Your task to perform on an android device: turn on javascript in the chrome app Image 0: 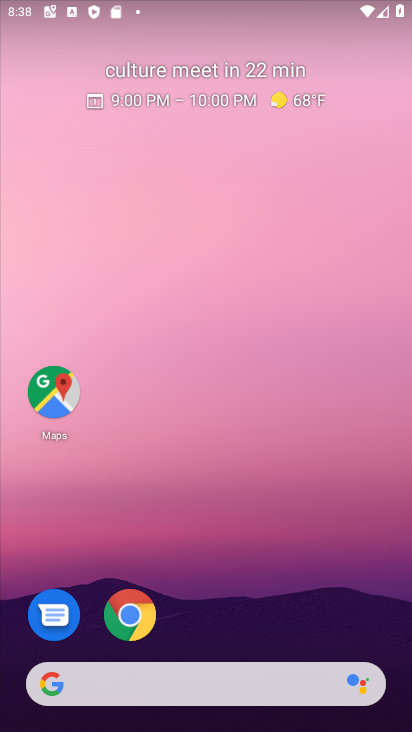
Step 0: click (326, 158)
Your task to perform on an android device: turn on javascript in the chrome app Image 1: 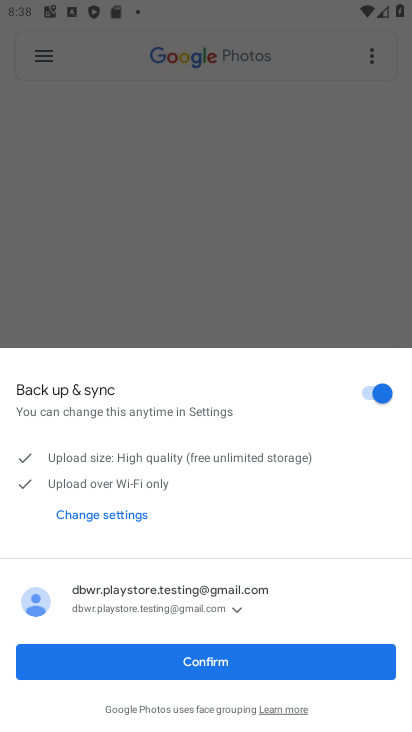
Step 1: click (257, 661)
Your task to perform on an android device: turn on javascript in the chrome app Image 2: 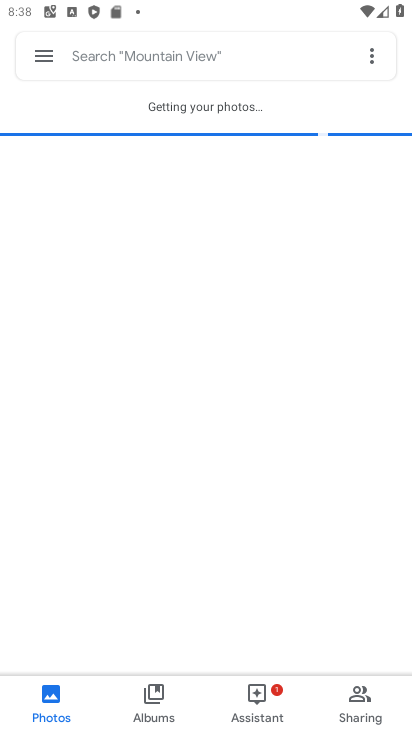
Step 2: press home button
Your task to perform on an android device: turn on javascript in the chrome app Image 3: 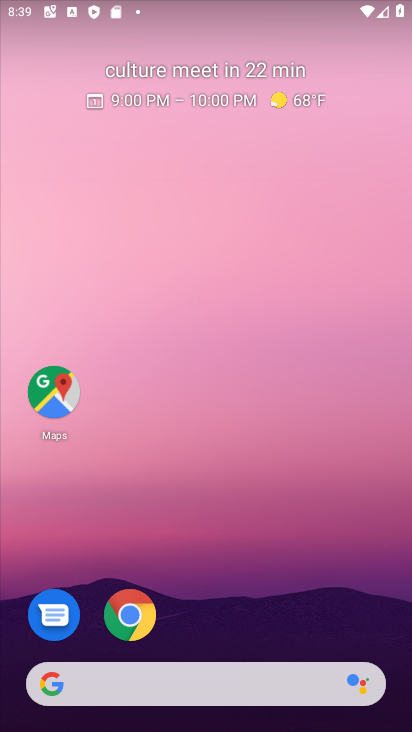
Step 3: drag from (401, 709) to (335, 295)
Your task to perform on an android device: turn on javascript in the chrome app Image 4: 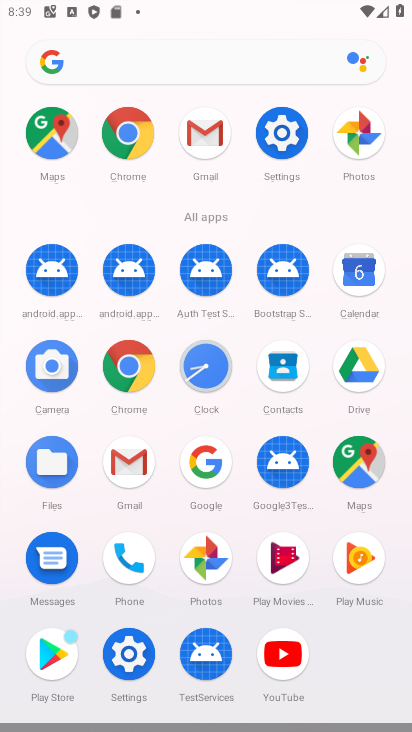
Step 4: click (133, 118)
Your task to perform on an android device: turn on javascript in the chrome app Image 5: 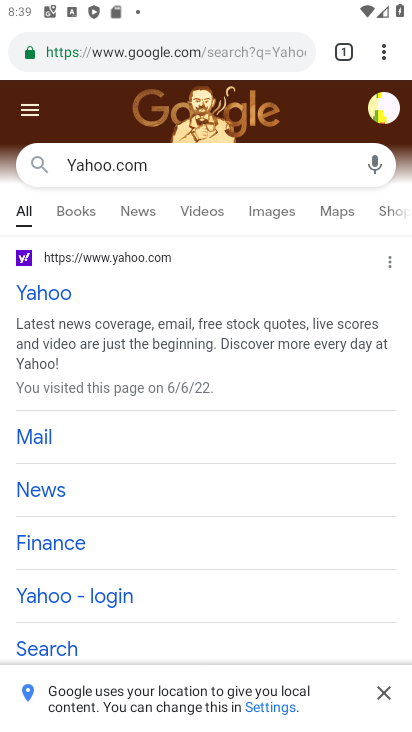
Step 5: click (387, 45)
Your task to perform on an android device: turn on javascript in the chrome app Image 6: 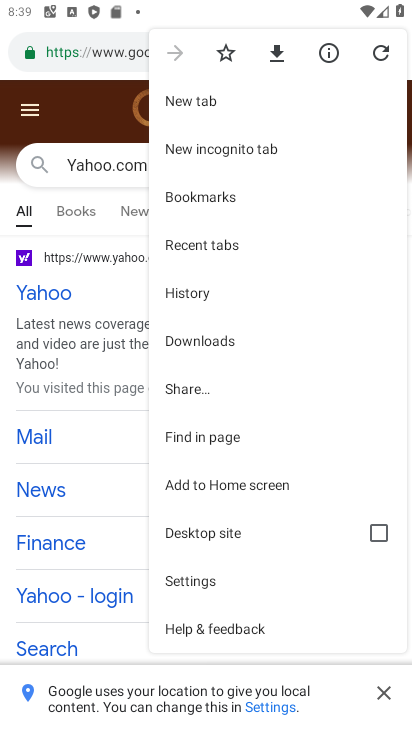
Step 6: click (384, 46)
Your task to perform on an android device: turn on javascript in the chrome app Image 7: 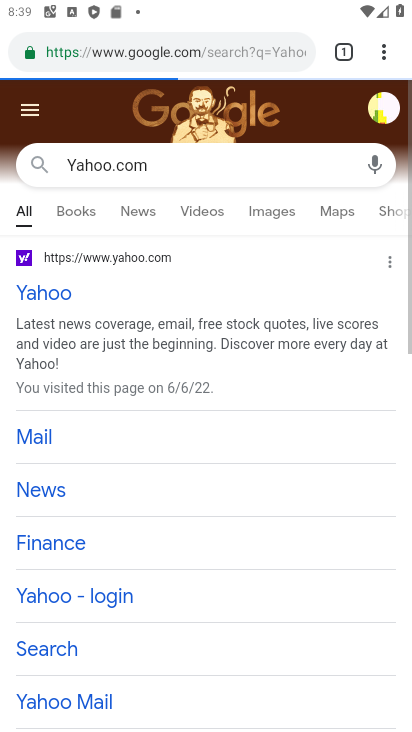
Step 7: click (384, 46)
Your task to perform on an android device: turn on javascript in the chrome app Image 8: 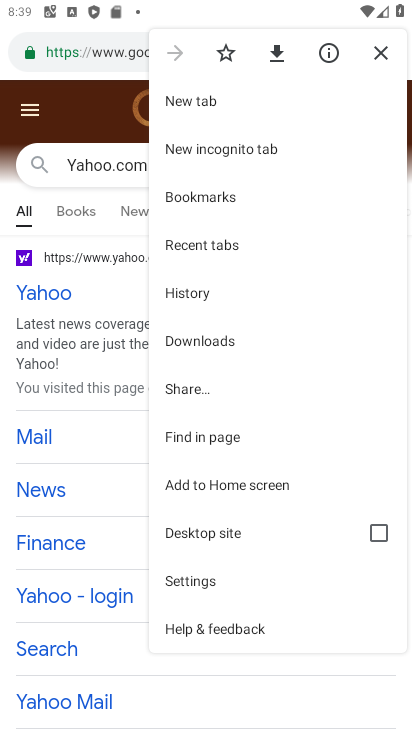
Step 8: click (188, 574)
Your task to perform on an android device: turn on javascript in the chrome app Image 9: 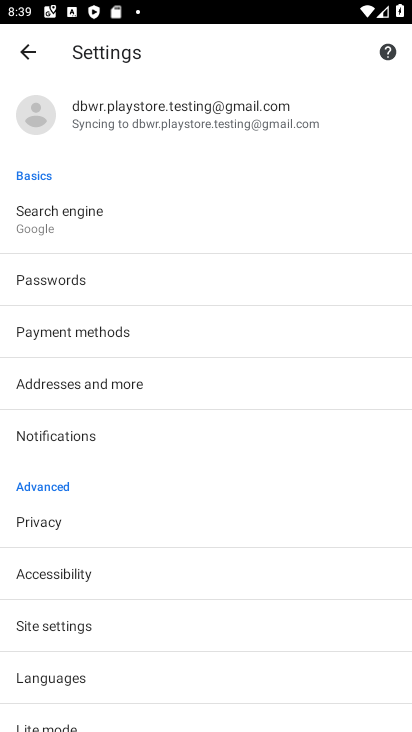
Step 9: click (64, 619)
Your task to perform on an android device: turn on javascript in the chrome app Image 10: 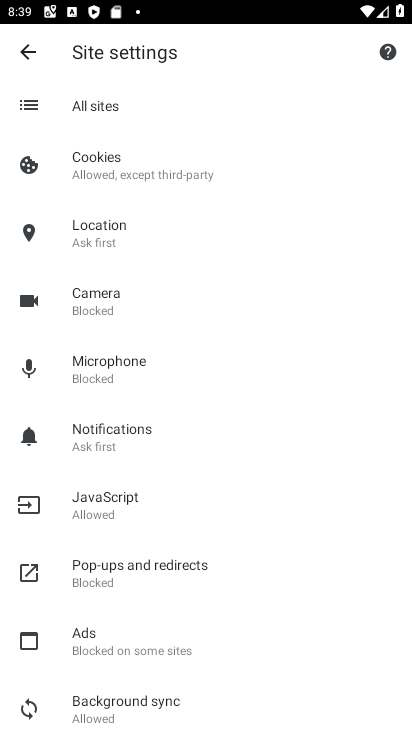
Step 10: click (103, 505)
Your task to perform on an android device: turn on javascript in the chrome app Image 11: 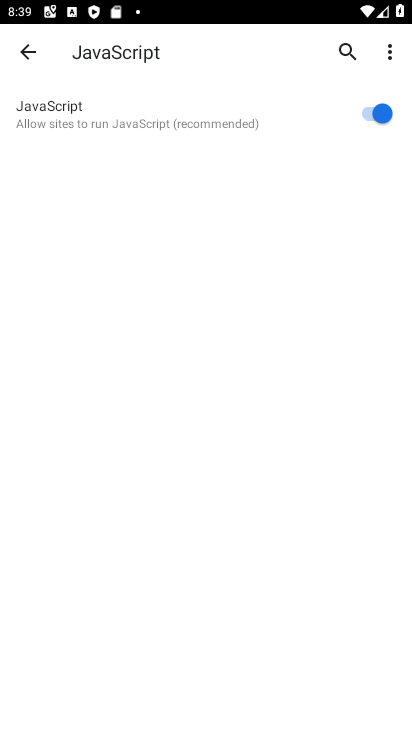
Step 11: task complete